Your task to perform on an android device: toggle show notifications on the lock screen Image 0: 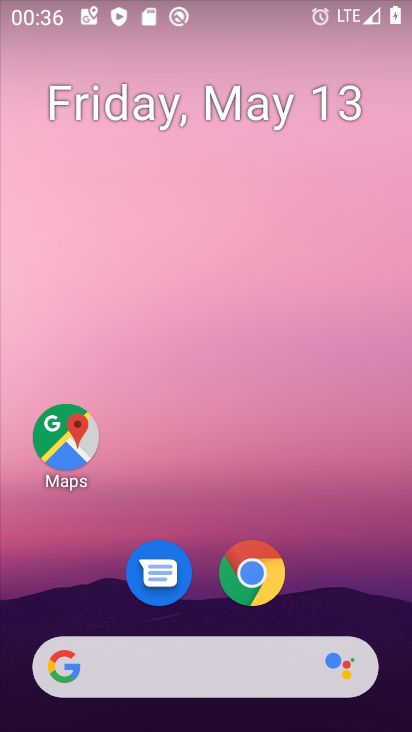
Step 0: drag from (206, 723) to (260, 21)
Your task to perform on an android device: toggle show notifications on the lock screen Image 1: 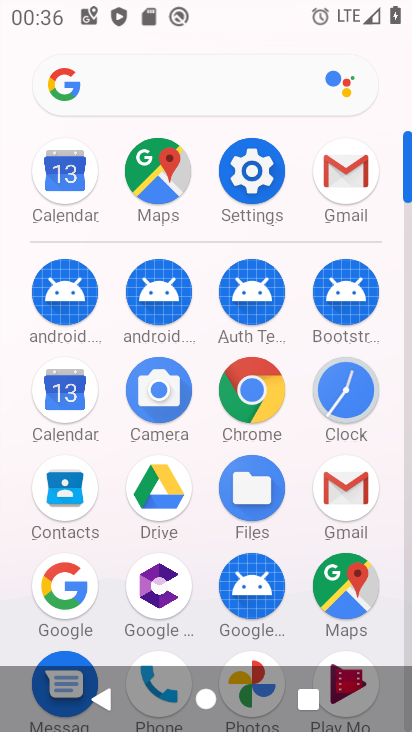
Step 1: click (251, 155)
Your task to perform on an android device: toggle show notifications on the lock screen Image 2: 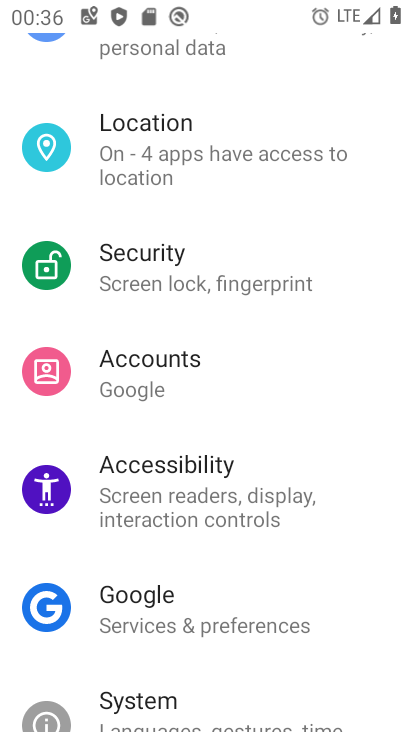
Step 2: drag from (324, 160) to (186, 690)
Your task to perform on an android device: toggle show notifications on the lock screen Image 3: 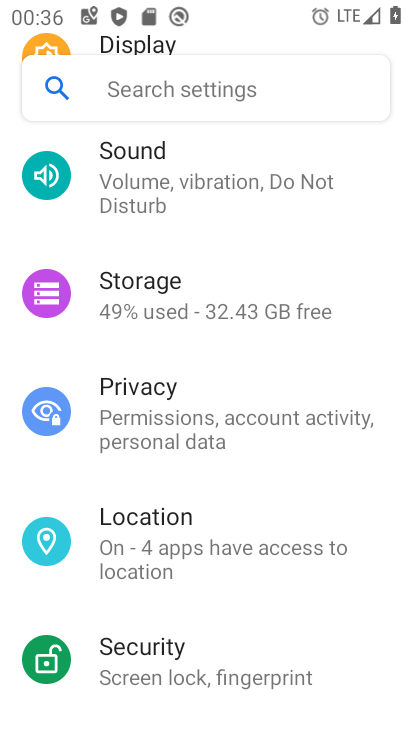
Step 3: drag from (280, 222) to (286, 667)
Your task to perform on an android device: toggle show notifications on the lock screen Image 4: 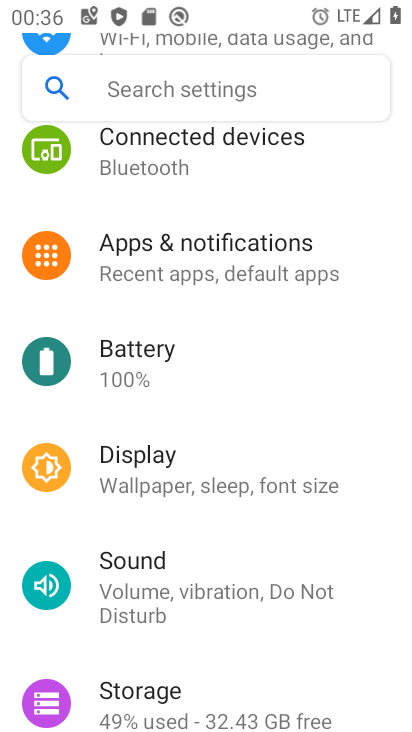
Step 4: drag from (310, 205) to (302, 675)
Your task to perform on an android device: toggle show notifications on the lock screen Image 5: 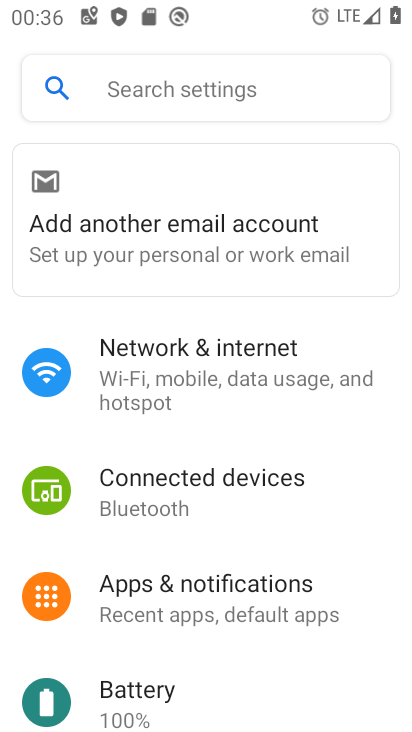
Step 5: click (201, 595)
Your task to perform on an android device: toggle show notifications on the lock screen Image 6: 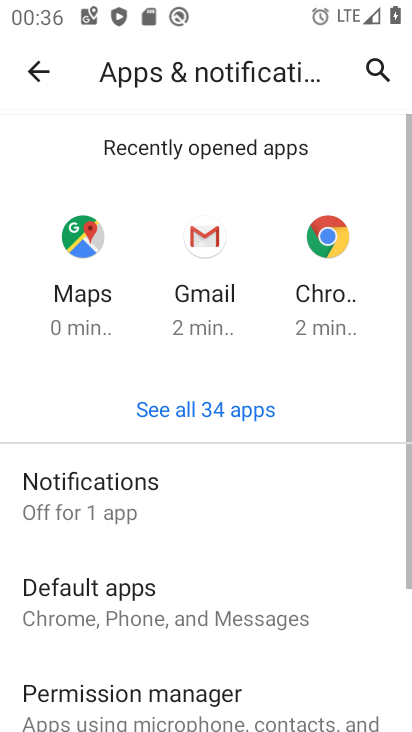
Step 6: click (118, 474)
Your task to perform on an android device: toggle show notifications on the lock screen Image 7: 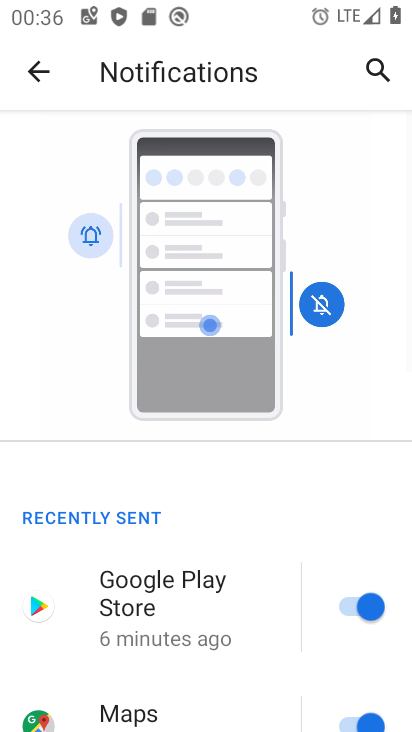
Step 7: drag from (259, 693) to (251, 61)
Your task to perform on an android device: toggle show notifications on the lock screen Image 8: 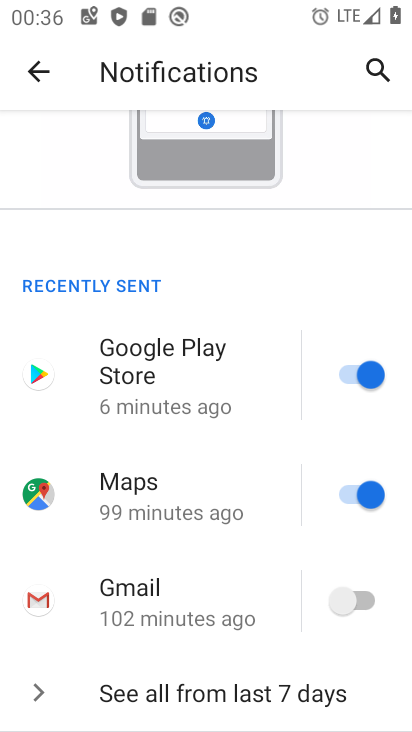
Step 8: drag from (221, 661) to (202, 76)
Your task to perform on an android device: toggle show notifications on the lock screen Image 9: 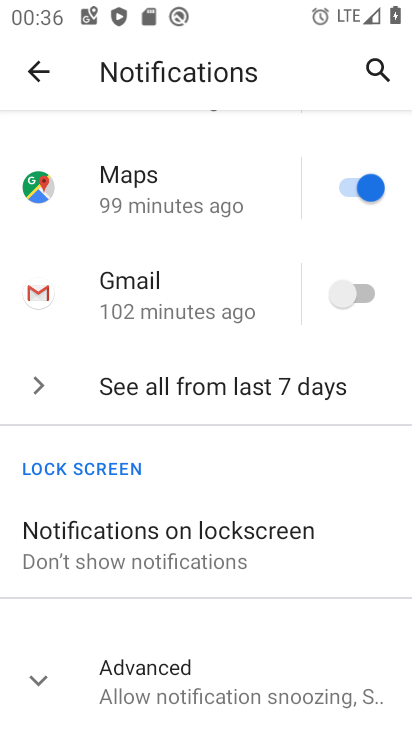
Step 9: drag from (219, 648) to (272, 193)
Your task to perform on an android device: toggle show notifications on the lock screen Image 10: 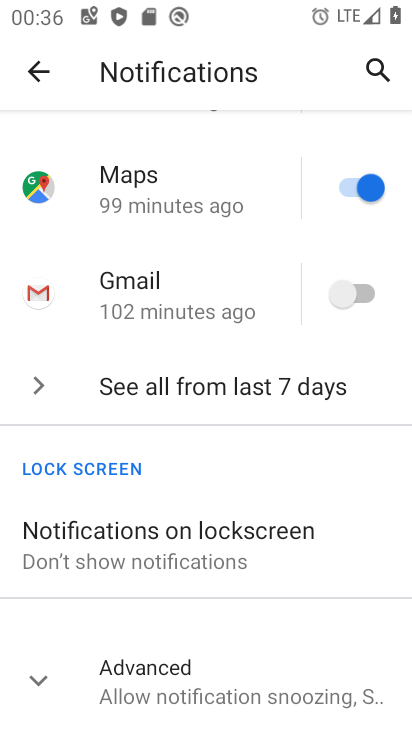
Step 10: click (251, 690)
Your task to perform on an android device: toggle show notifications on the lock screen Image 11: 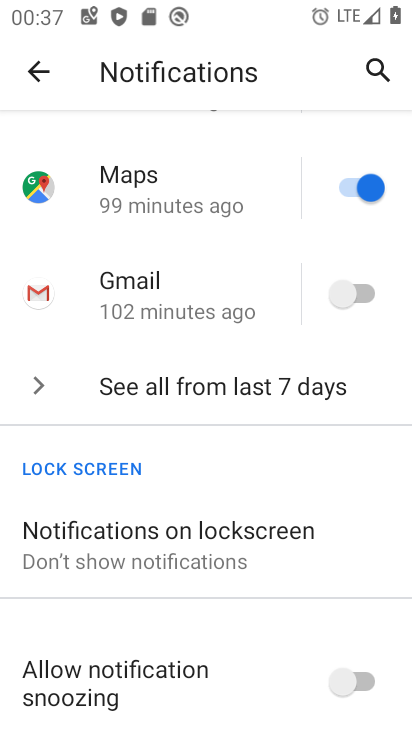
Step 11: click (135, 563)
Your task to perform on an android device: toggle show notifications on the lock screen Image 12: 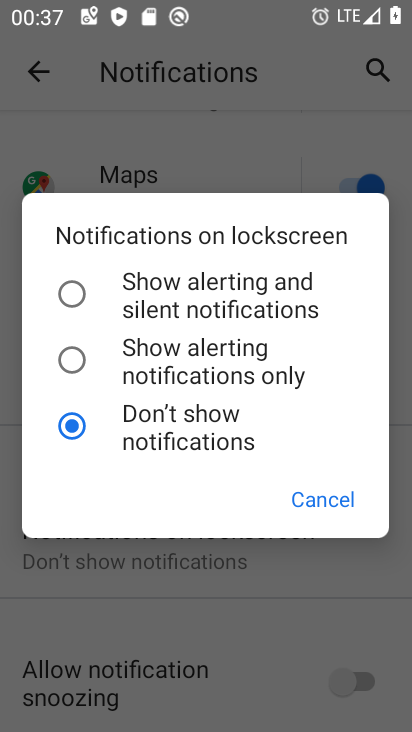
Step 12: click (208, 282)
Your task to perform on an android device: toggle show notifications on the lock screen Image 13: 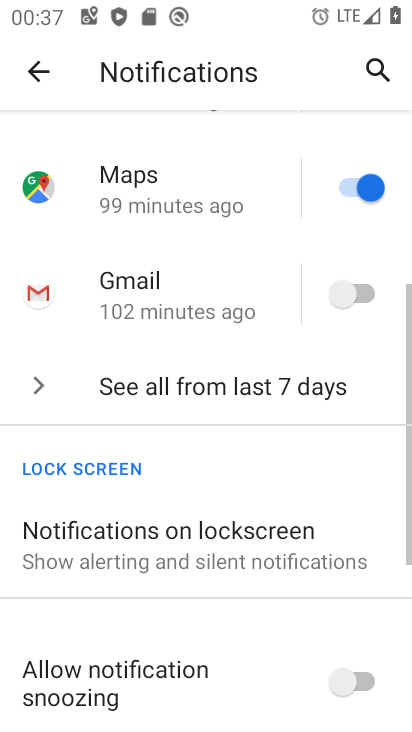
Step 13: task complete